Your task to perform on an android device: empty trash in the gmail app Image 0: 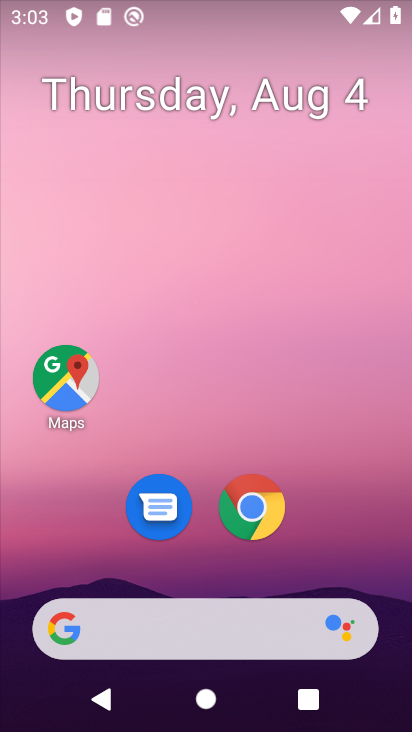
Step 0: drag from (103, 457) to (234, 3)
Your task to perform on an android device: empty trash in the gmail app Image 1: 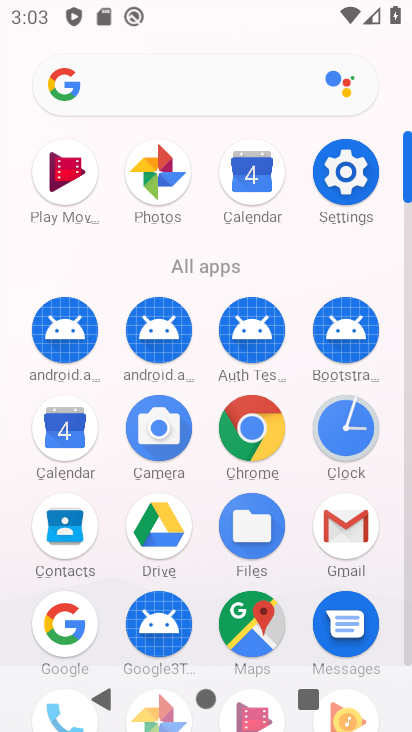
Step 1: click (332, 526)
Your task to perform on an android device: empty trash in the gmail app Image 2: 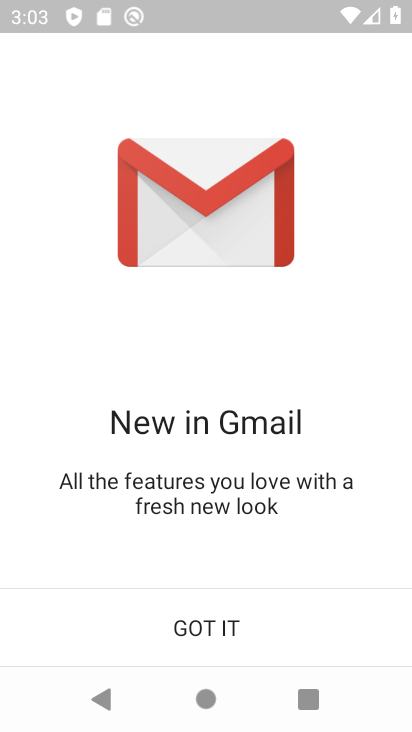
Step 2: click (213, 622)
Your task to perform on an android device: empty trash in the gmail app Image 3: 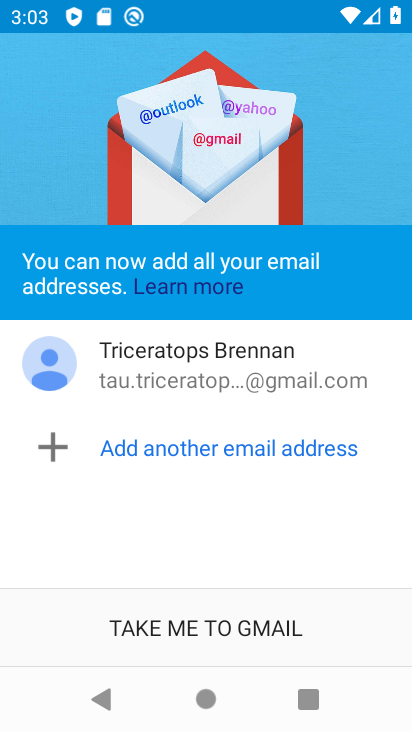
Step 3: click (170, 624)
Your task to perform on an android device: empty trash in the gmail app Image 4: 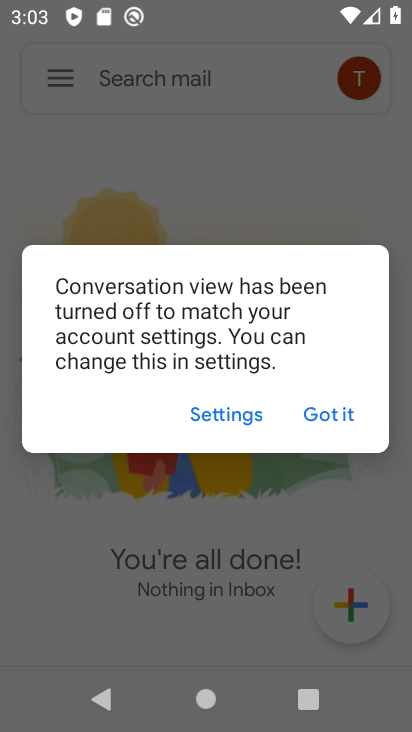
Step 4: click (294, 409)
Your task to perform on an android device: empty trash in the gmail app Image 5: 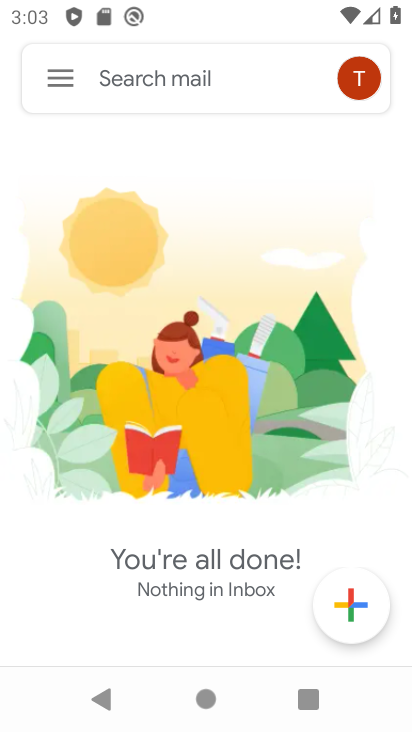
Step 5: click (53, 78)
Your task to perform on an android device: empty trash in the gmail app Image 6: 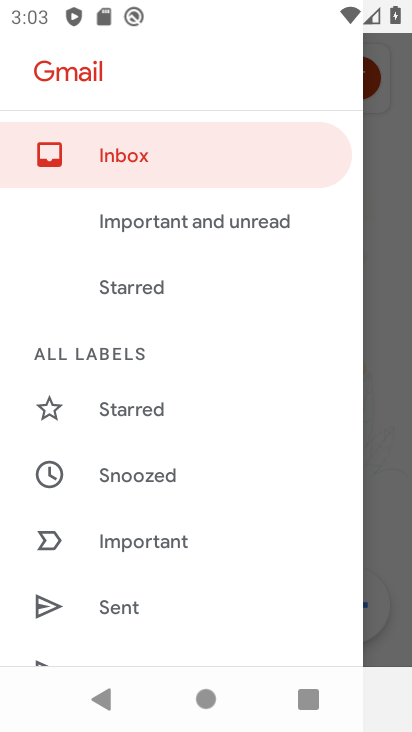
Step 6: drag from (91, 545) to (94, 256)
Your task to perform on an android device: empty trash in the gmail app Image 7: 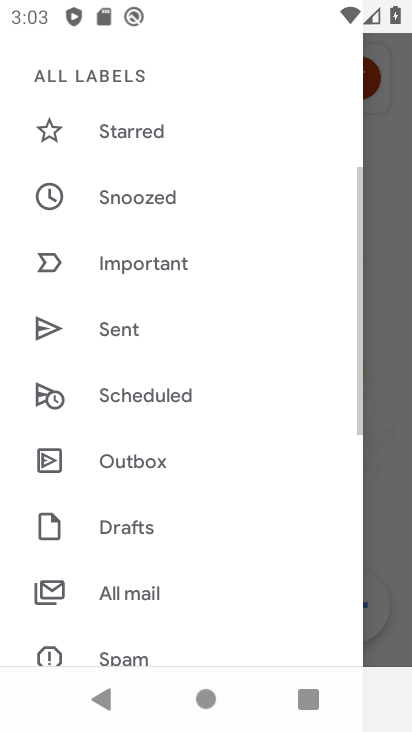
Step 7: drag from (88, 633) to (95, 489)
Your task to perform on an android device: empty trash in the gmail app Image 8: 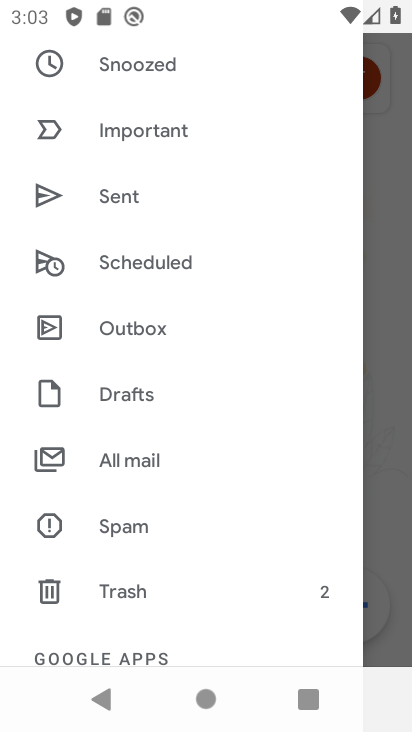
Step 8: click (95, 587)
Your task to perform on an android device: empty trash in the gmail app Image 9: 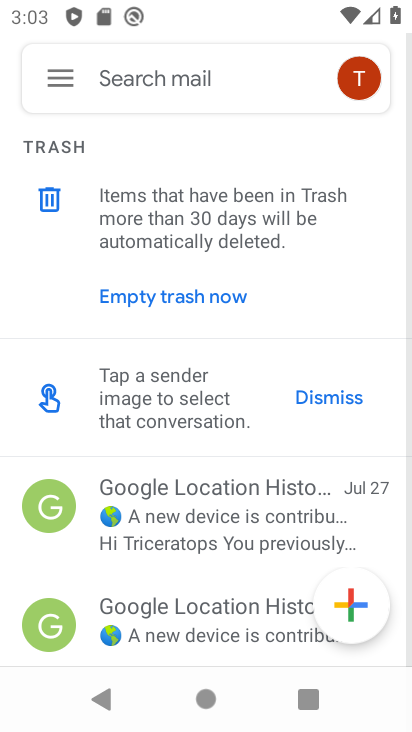
Step 9: task complete